Your task to perform on an android device: Open Chrome and go to settings Image 0: 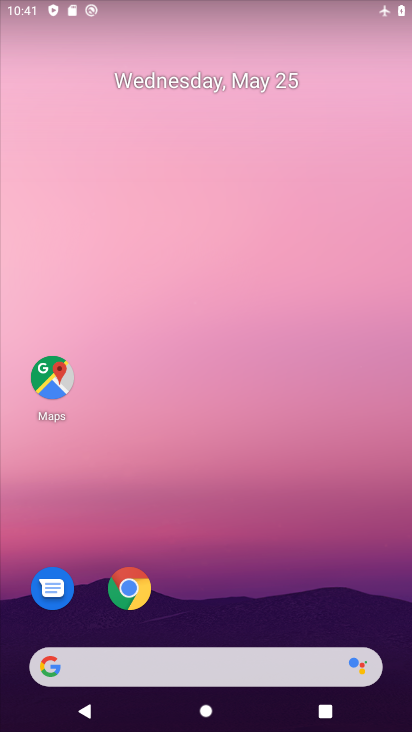
Step 0: drag from (269, 559) to (241, 169)
Your task to perform on an android device: Open Chrome and go to settings Image 1: 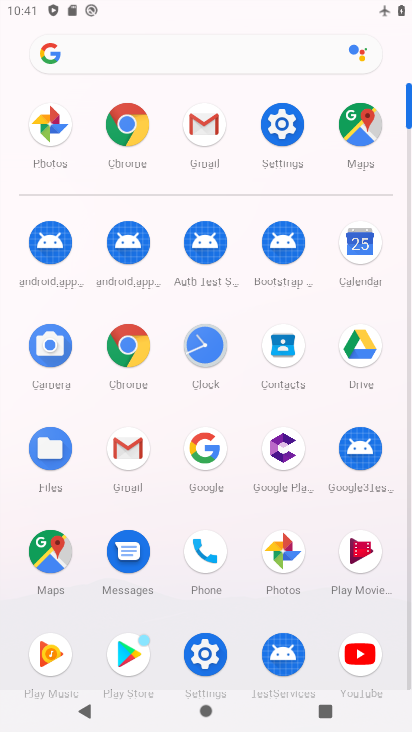
Step 1: click (136, 339)
Your task to perform on an android device: Open Chrome and go to settings Image 2: 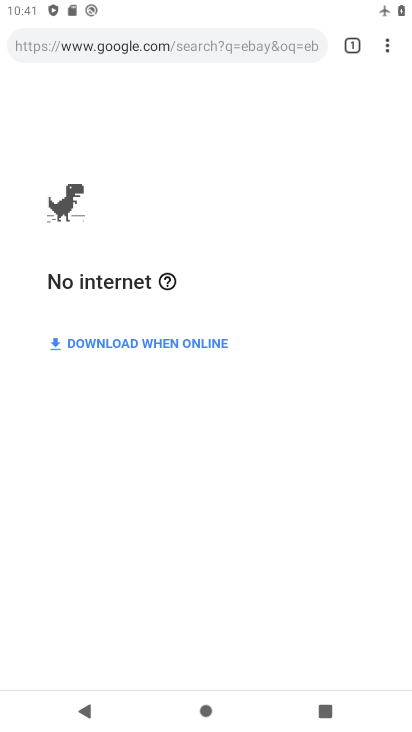
Step 2: click (389, 42)
Your task to perform on an android device: Open Chrome and go to settings Image 3: 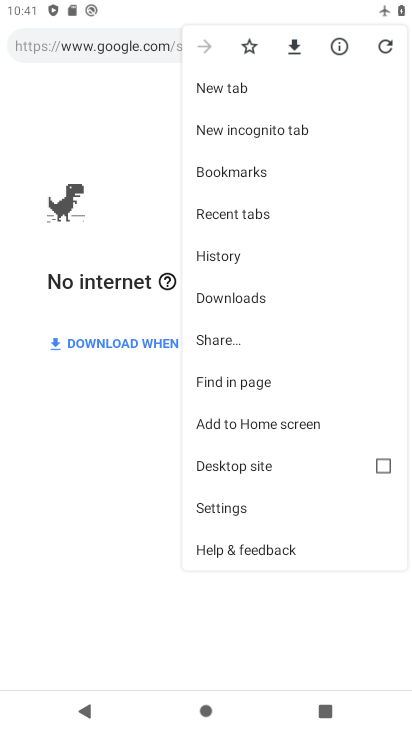
Step 3: click (216, 501)
Your task to perform on an android device: Open Chrome and go to settings Image 4: 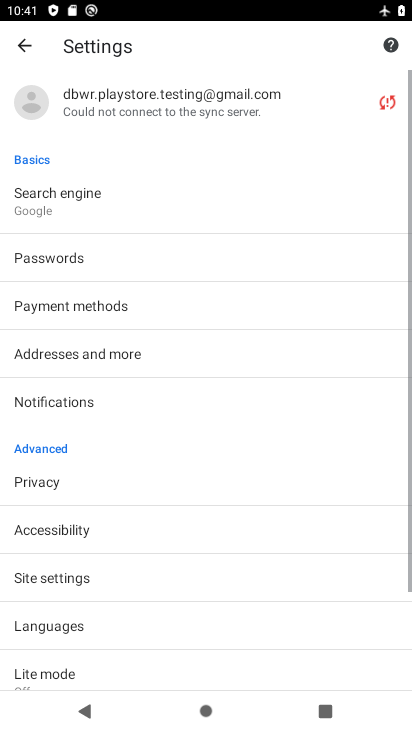
Step 4: task complete